Your task to perform on an android device: Open Google Image 0: 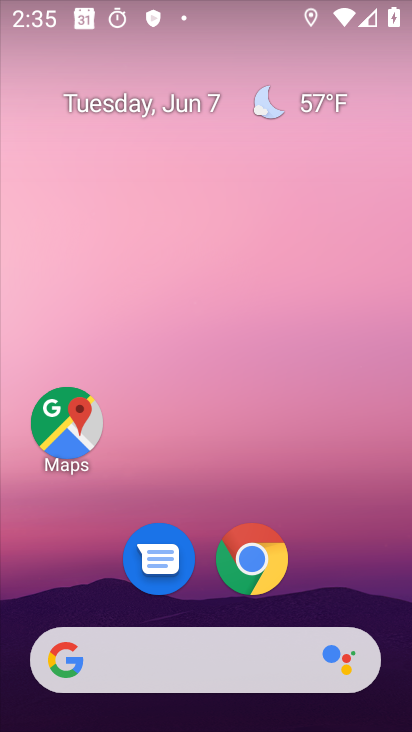
Step 0: drag from (335, 553) to (254, 21)
Your task to perform on an android device: Open Google Image 1: 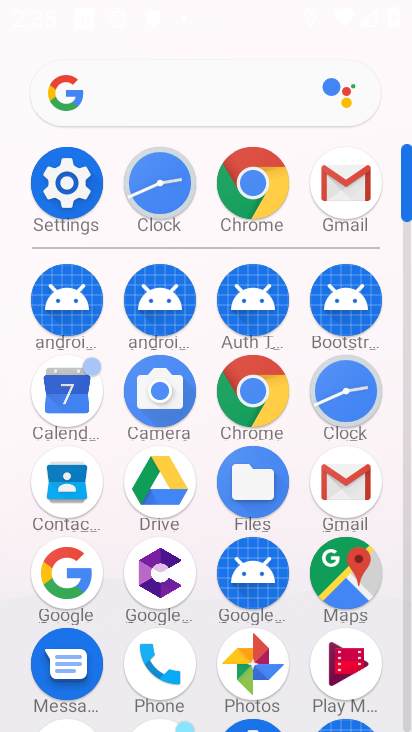
Step 1: click (249, 186)
Your task to perform on an android device: Open Google Image 2: 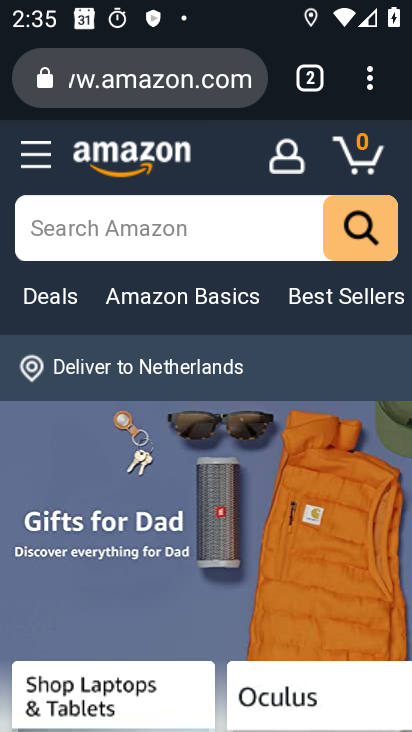
Step 2: click (173, 76)
Your task to perform on an android device: Open Google Image 3: 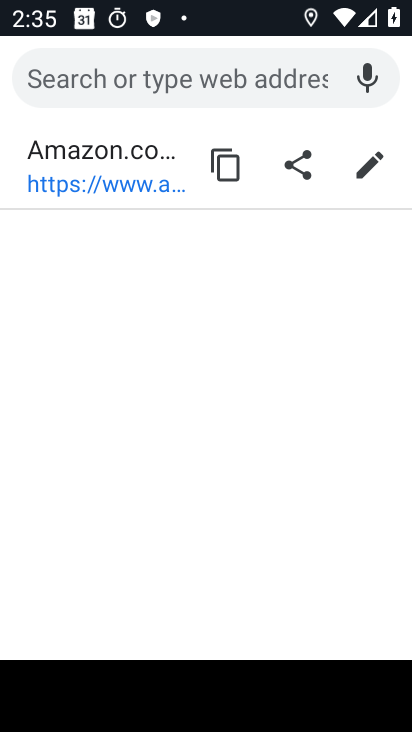
Step 3: type "Google"
Your task to perform on an android device: Open Google Image 4: 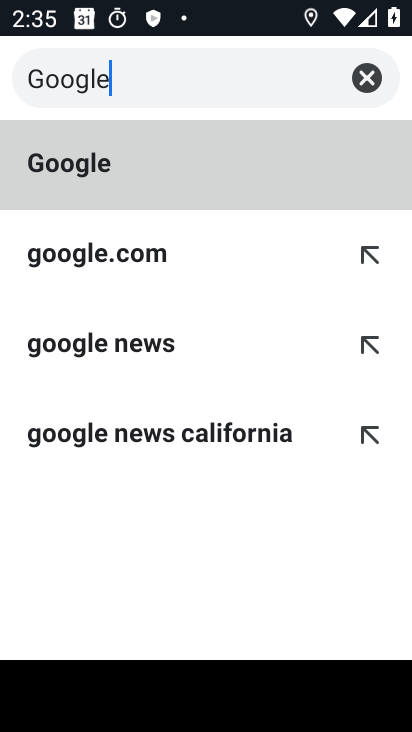
Step 4: type ""
Your task to perform on an android device: Open Google Image 5: 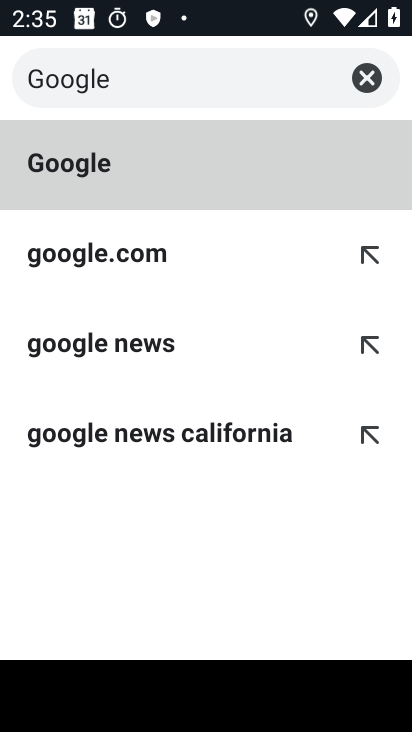
Step 5: click (97, 255)
Your task to perform on an android device: Open Google Image 6: 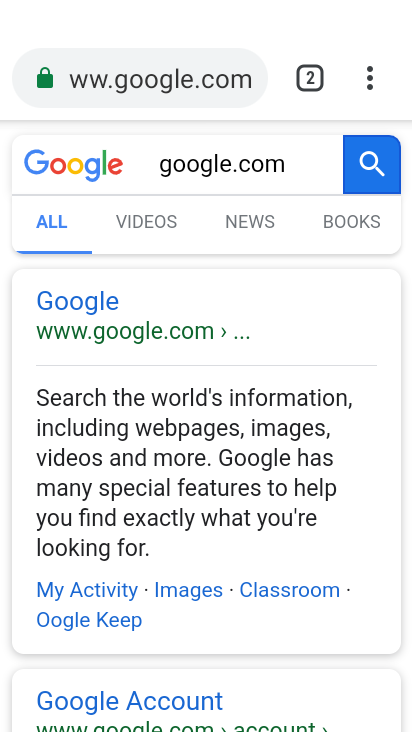
Step 6: click (102, 296)
Your task to perform on an android device: Open Google Image 7: 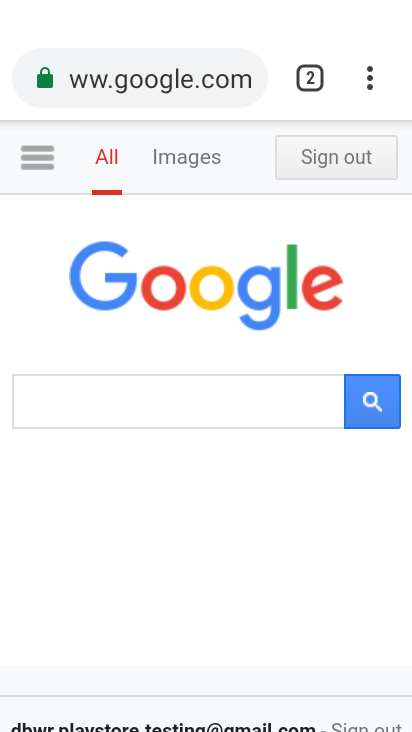
Step 7: task complete